Your task to perform on an android device: Search for sushi restaurants on Maps Image 0: 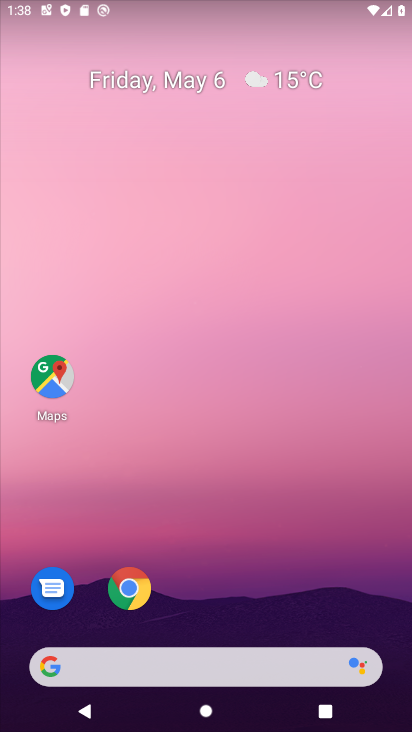
Step 0: drag from (165, 623) to (145, 145)
Your task to perform on an android device: Search for sushi restaurants on Maps Image 1: 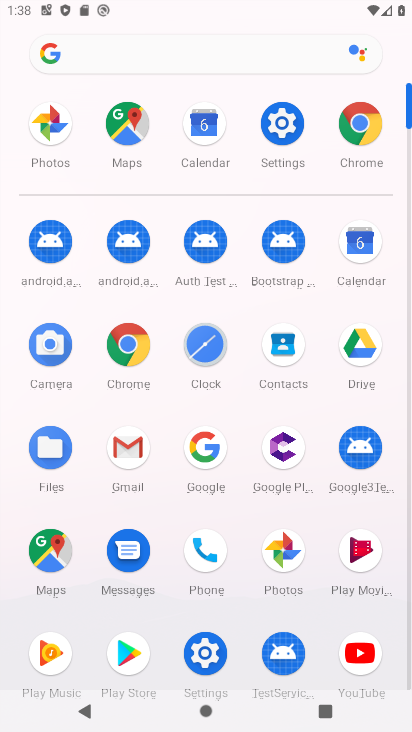
Step 1: click (38, 560)
Your task to perform on an android device: Search for sushi restaurants on Maps Image 2: 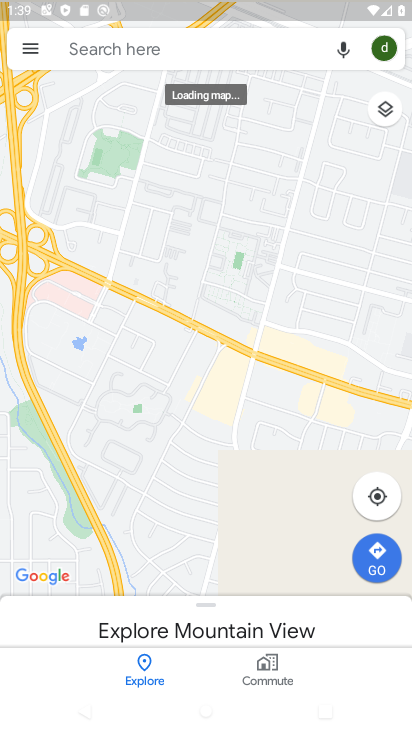
Step 2: click (116, 49)
Your task to perform on an android device: Search for sushi restaurants on Maps Image 3: 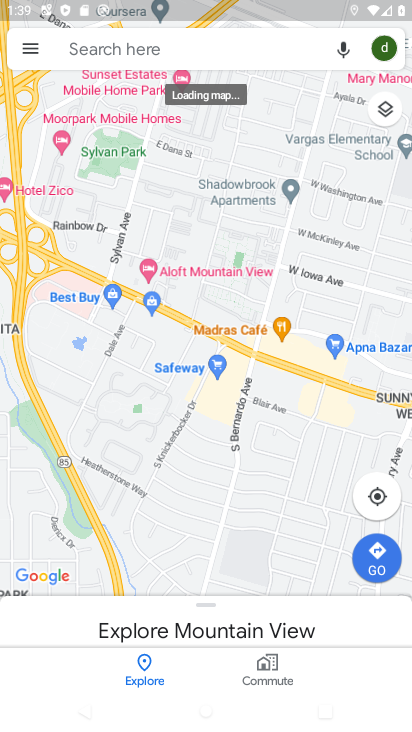
Step 3: click (110, 47)
Your task to perform on an android device: Search for sushi restaurants on Maps Image 4: 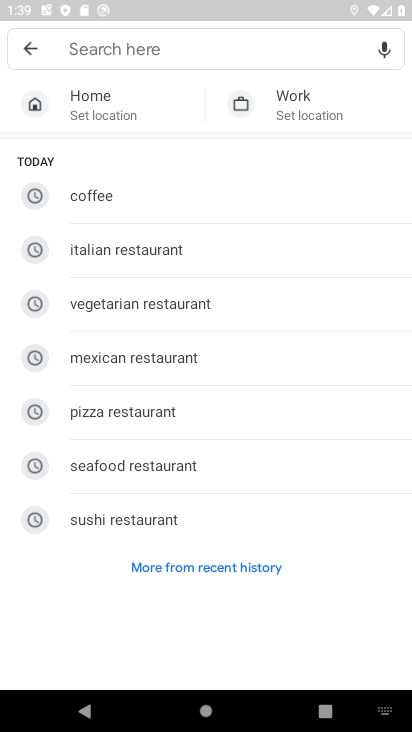
Step 4: click (112, 521)
Your task to perform on an android device: Search for sushi restaurants on Maps Image 5: 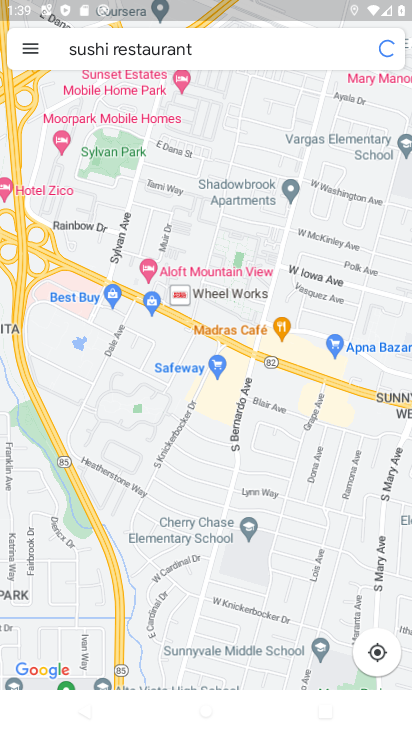
Step 5: task complete